Your task to perform on an android device: Open eBay Image 0: 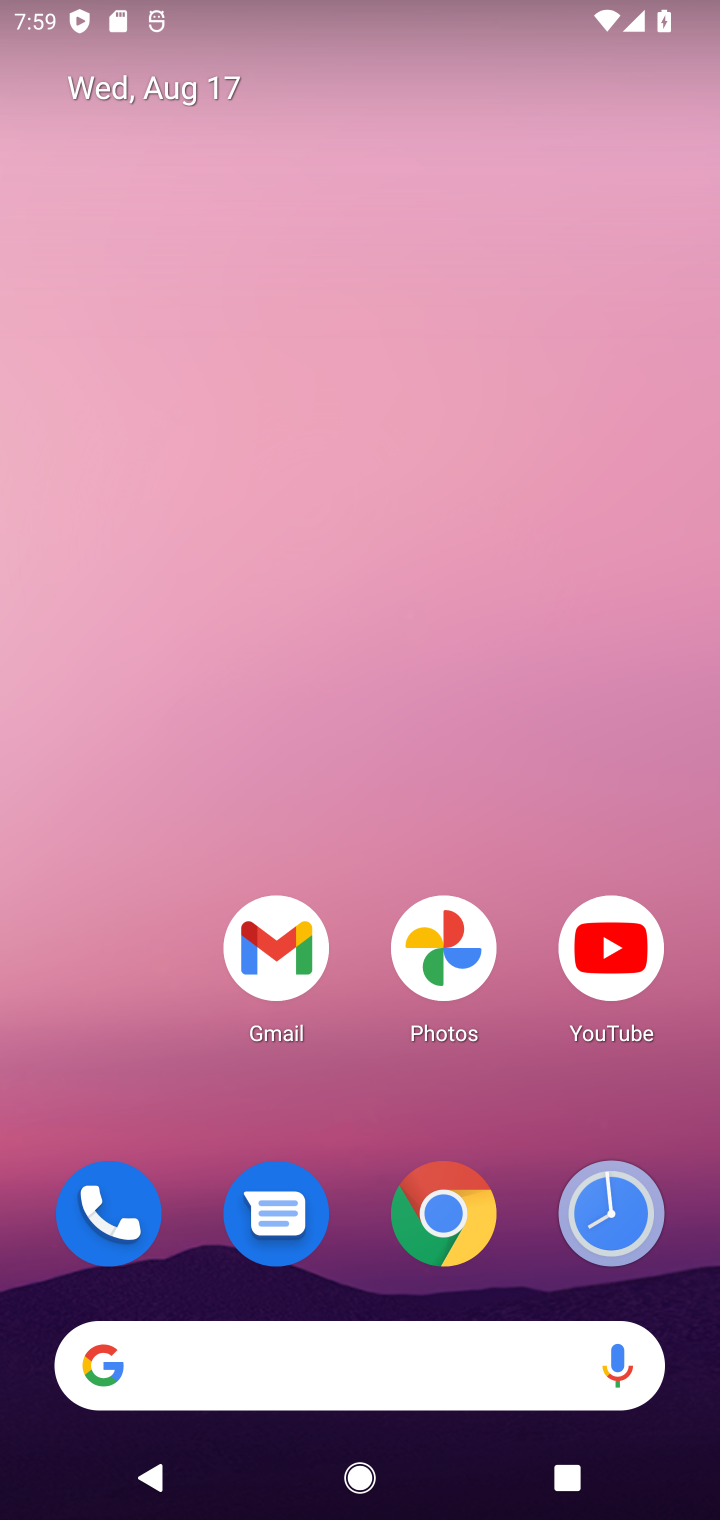
Step 0: click (472, 1196)
Your task to perform on an android device: Open eBay Image 1: 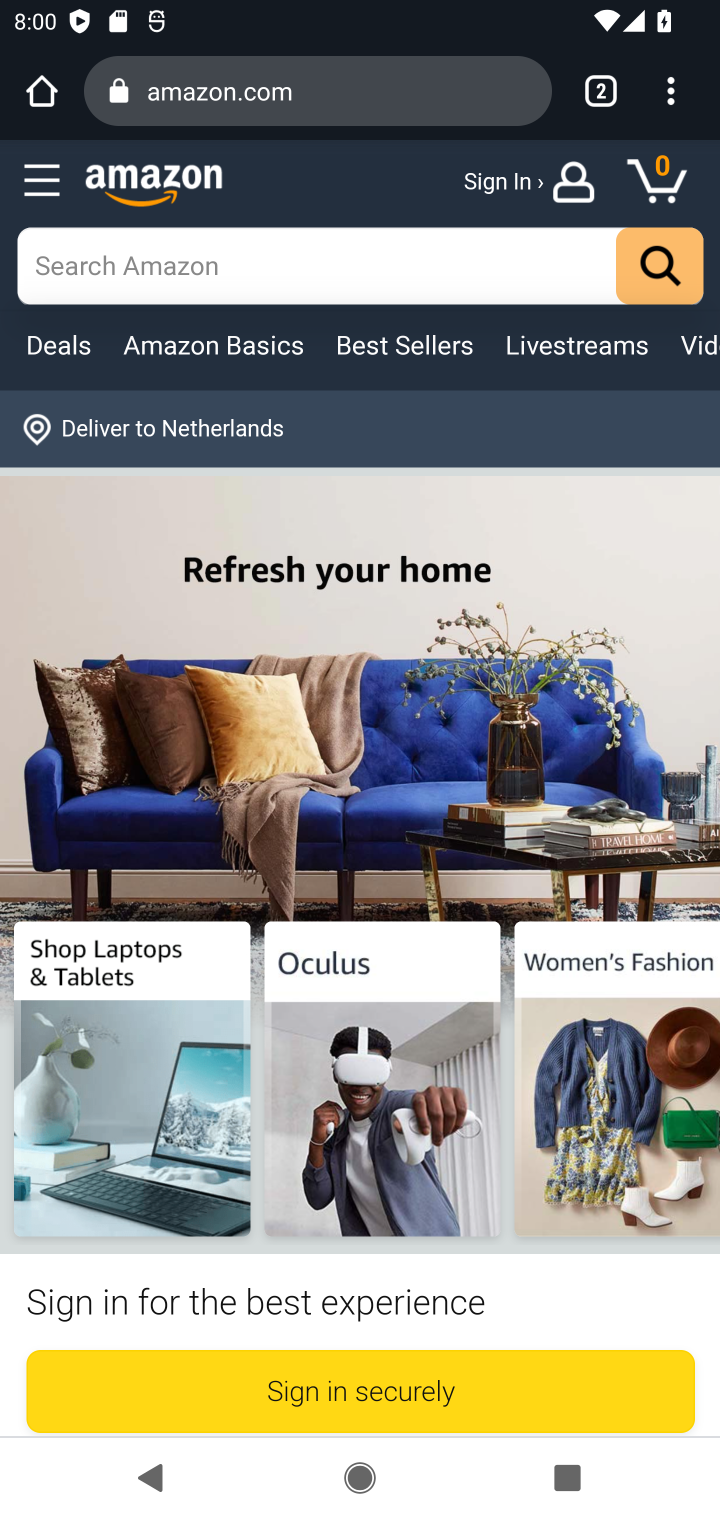
Step 1: click (468, 87)
Your task to perform on an android device: Open eBay Image 2: 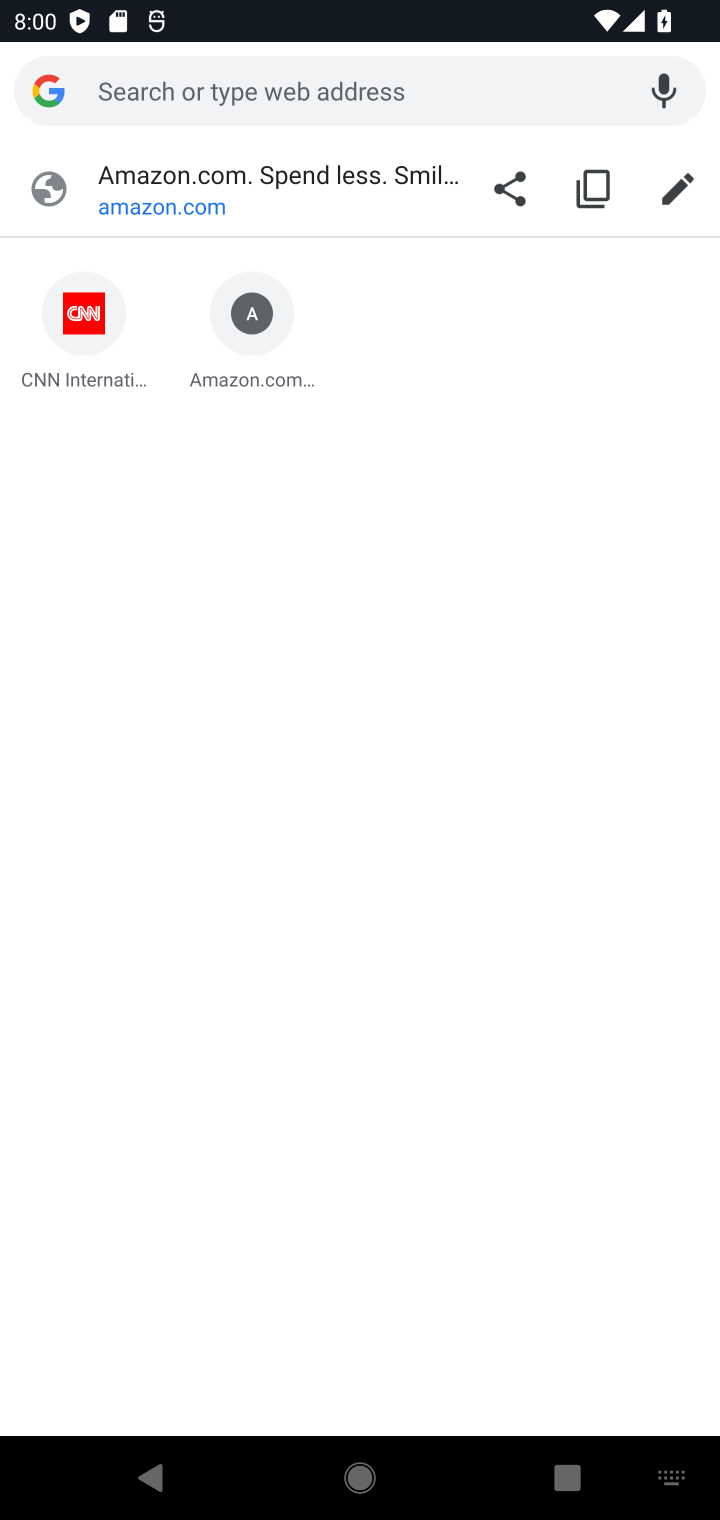
Step 2: type "ebay.com"
Your task to perform on an android device: Open eBay Image 3: 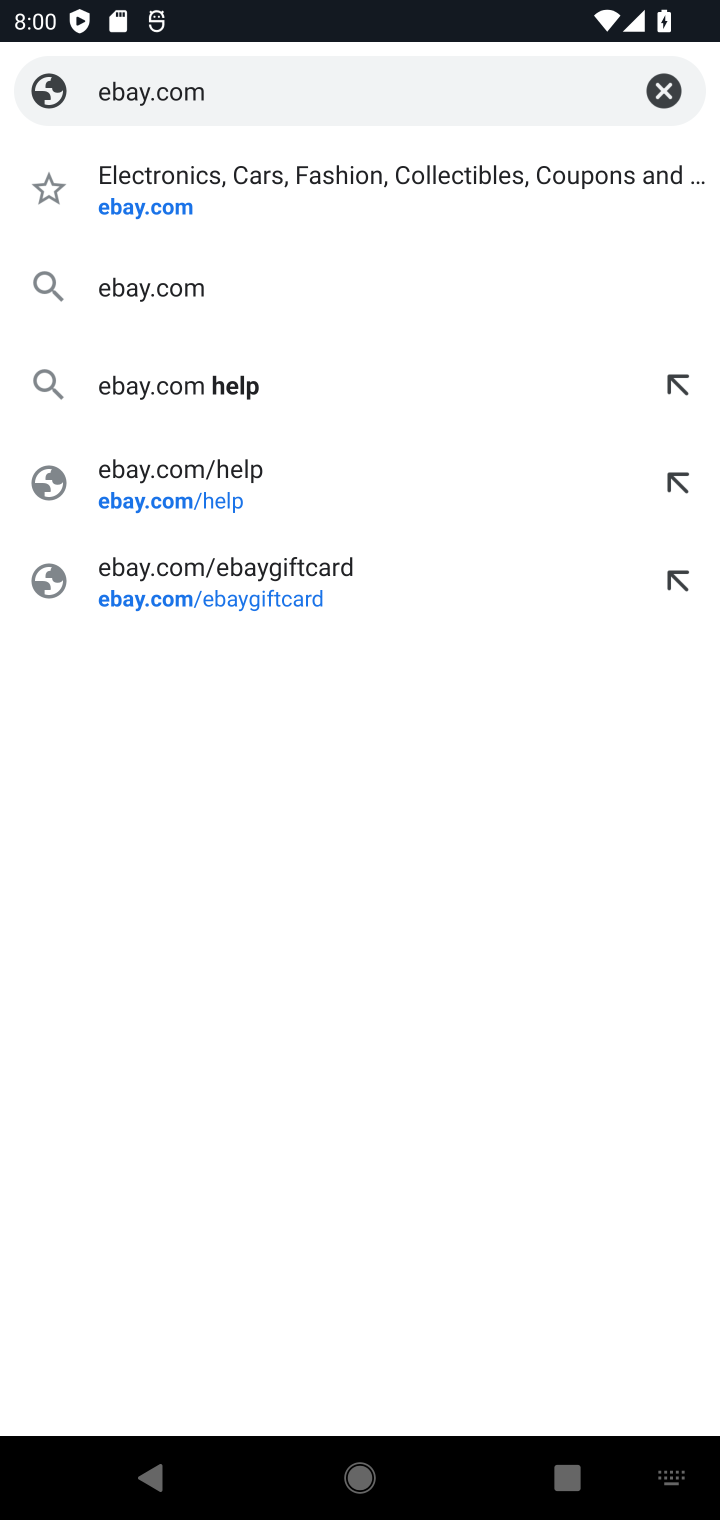
Step 3: click (247, 199)
Your task to perform on an android device: Open eBay Image 4: 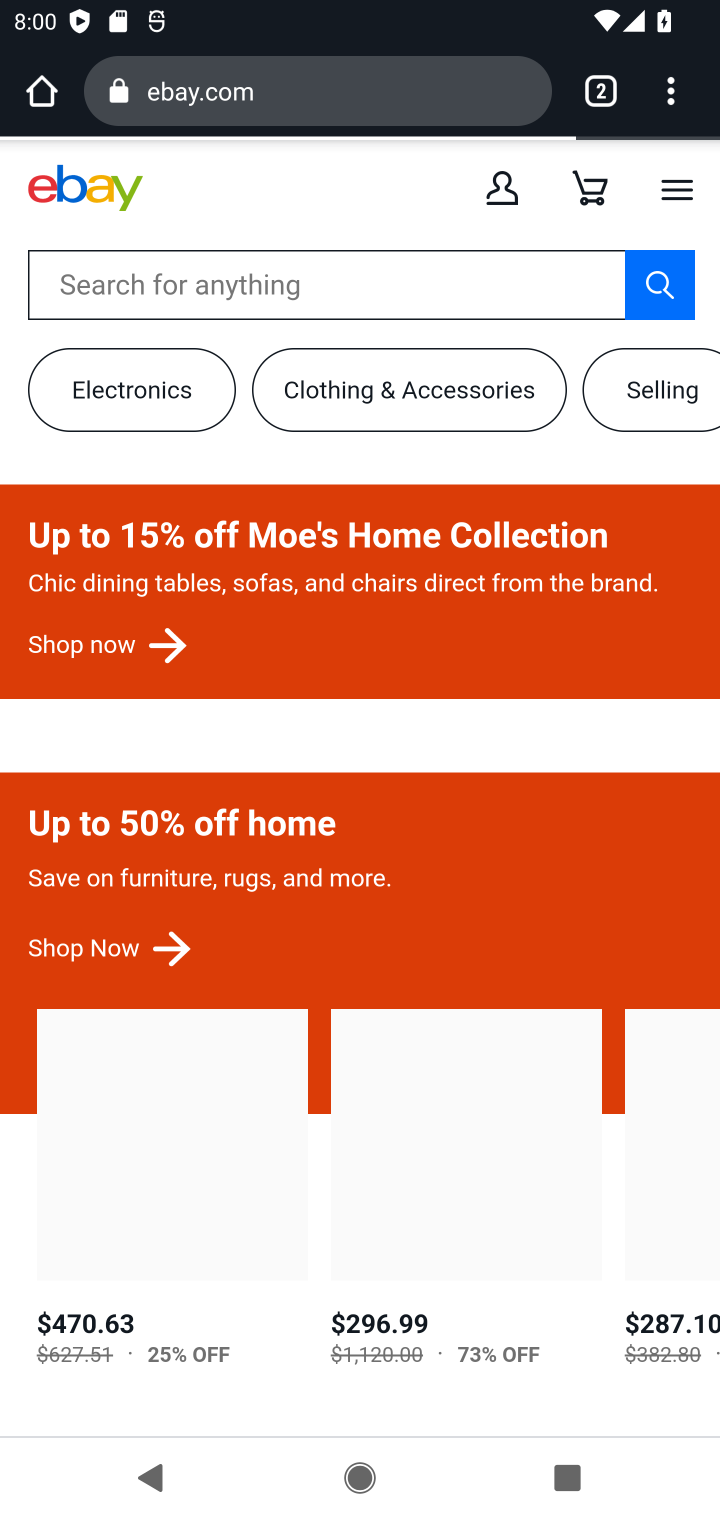
Step 4: task complete